Your task to perform on an android device: open app "DuckDuckGo Privacy Browser" Image 0: 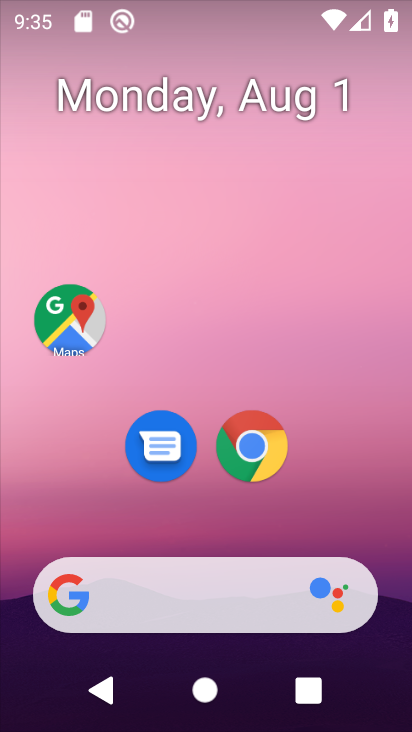
Step 0: drag from (182, 517) to (183, 17)
Your task to perform on an android device: open app "DuckDuckGo Privacy Browser" Image 1: 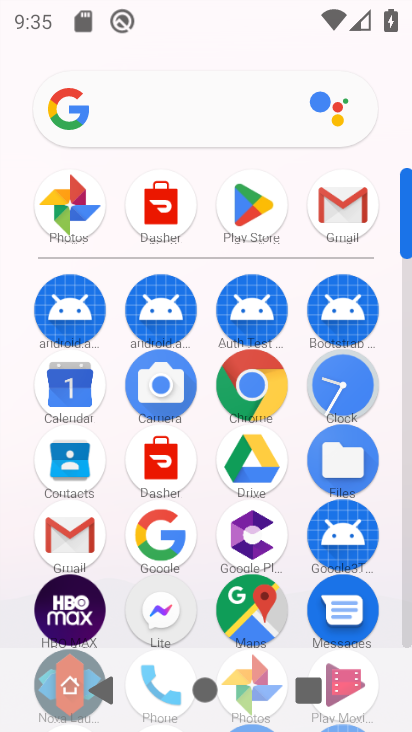
Step 1: click (242, 211)
Your task to perform on an android device: open app "DuckDuckGo Privacy Browser" Image 2: 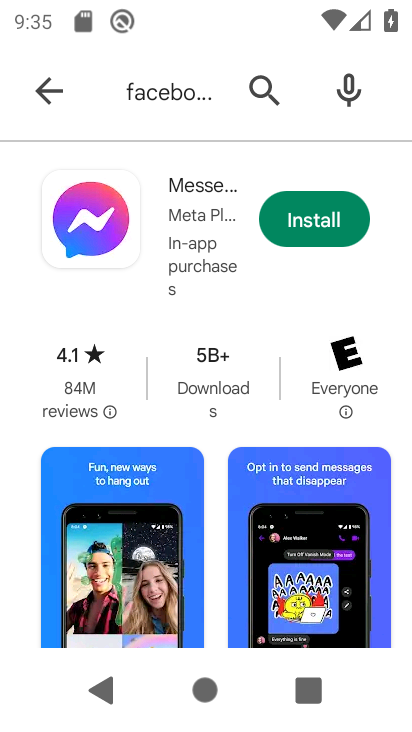
Step 2: click (268, 85)
Your task to perform on an android device: open app "DuckDuckGo Privacy Browser" Image 3: 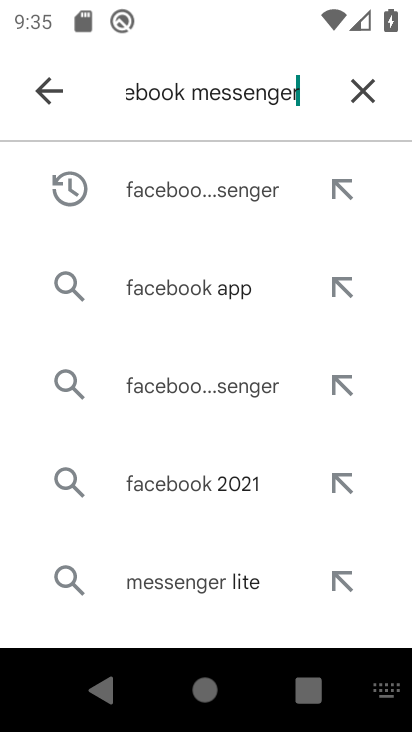
Step 3: click (351, 78)
Your task to perform on an android device: open app "DuckDuckGo Privacy Browser" Image 4: 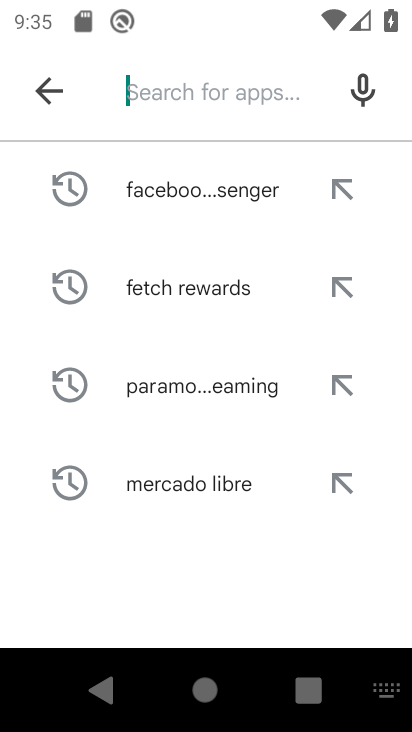
Step 4: type "DuckDuckGo Privacy Browser"
Your task to perform on an android device: open app "DuckDuckGo Privacy Browser" Image 5: 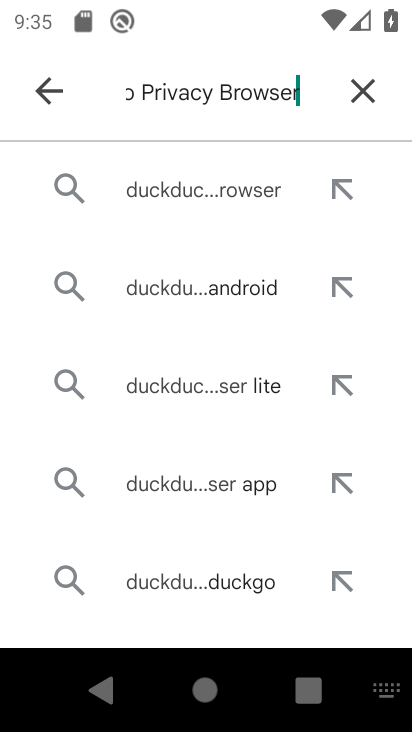
Step 5: click (164, 182)
Your task to perform on an android device: open app "DuckDuckGo Privacy Browser" Image 6: 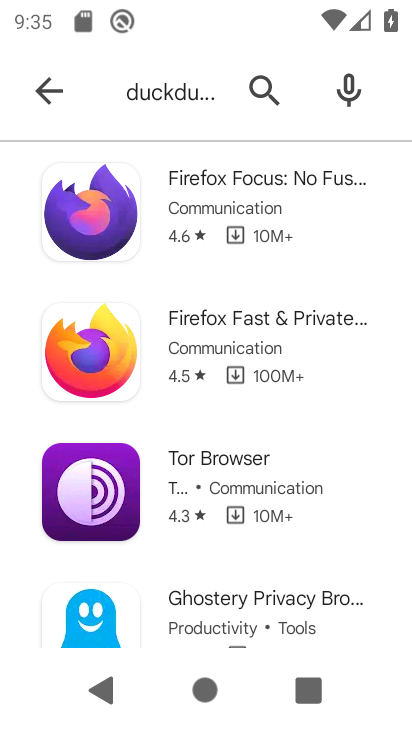
Step 6: task complete